Your task to perform on an android device: delete browsing data in the chrome app Image 0: 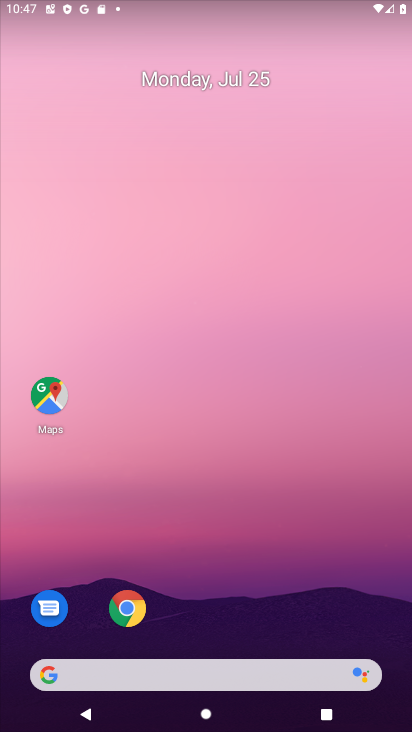
Step 0: drag from (223, 642) to (238, 48)
Your task to perform on an android device: delete browsing data in the chrome app Image 1: 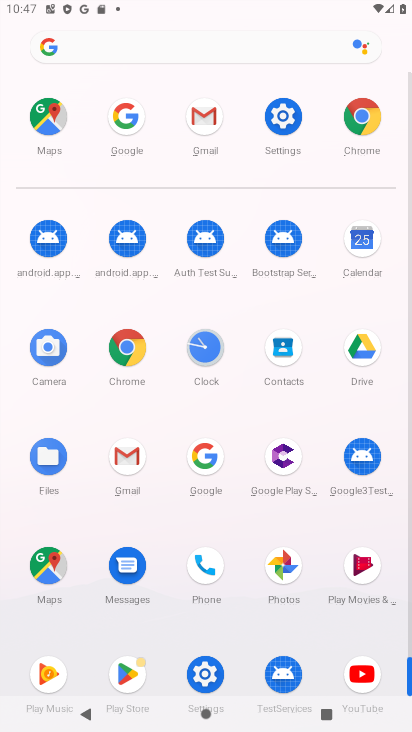
Step 1: click (130, 361)
Your task to perform on an android device: delete browsing data in the chrome app Image 2: 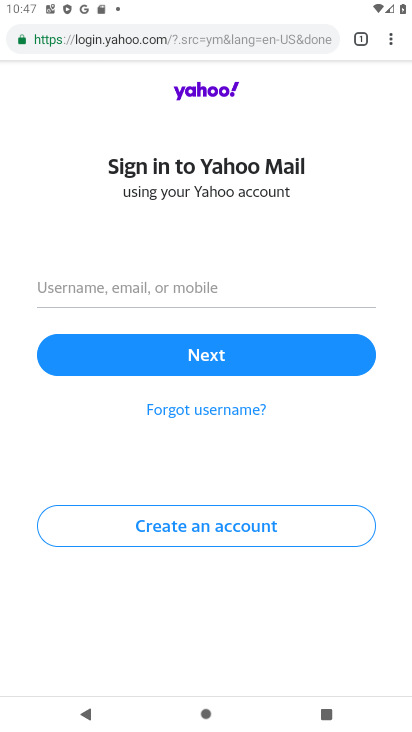
Step 2: click (392, 41)
Your task to perform on an android device: delete browsing data in the chrome app Image 3: 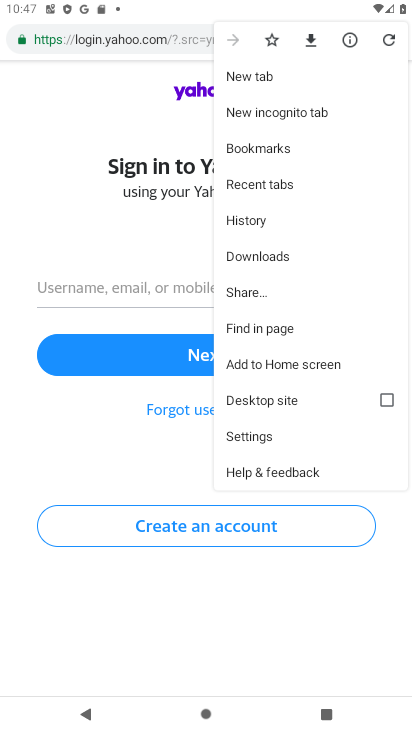
Step 3: click (262, 217)
Your task to perform on an android device: delete browsing data in the chrome app Image 4: 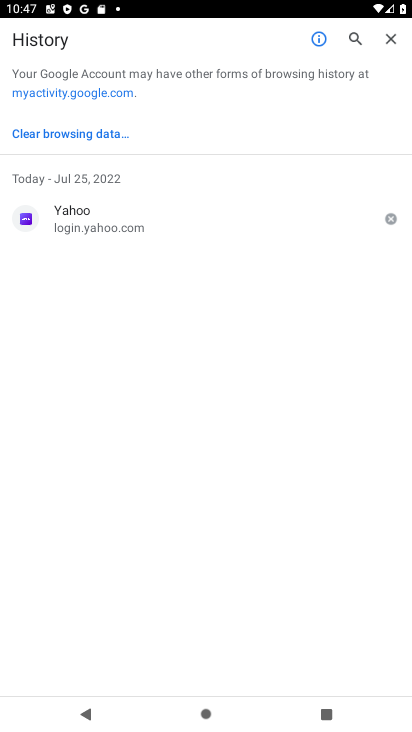
Step 4: click (97, 131)
Your task to perform on an android device: delete browsing data in the chrome app Image 5: 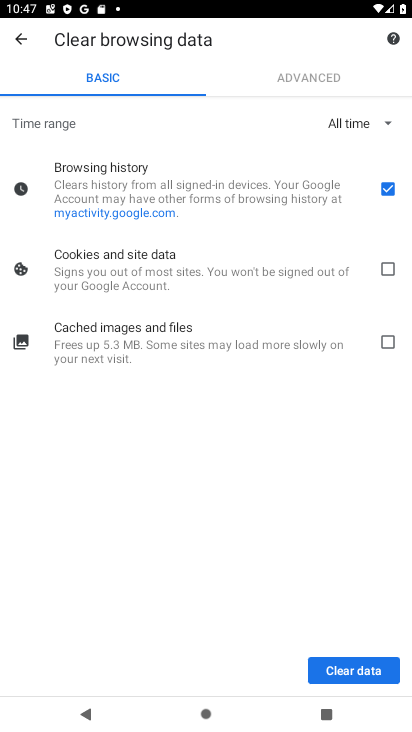
Step 5: click (352, 670)
Your task to perform on an android device: delete browsing data in the chrome app Image 6: 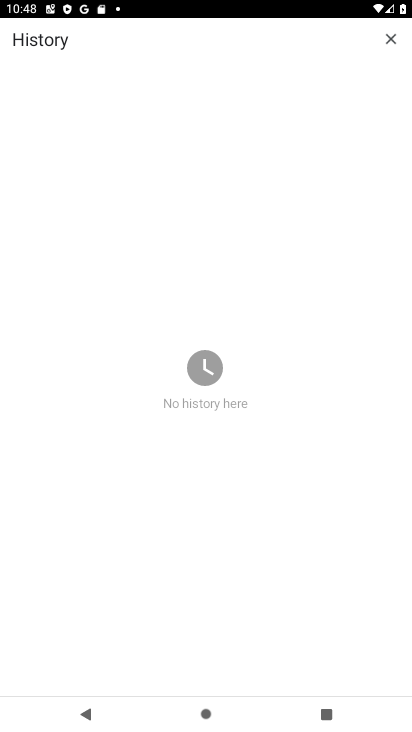
Step 6: task complete